Your task to perform on an android device: Go to calendar. Show me events next week Image 0: 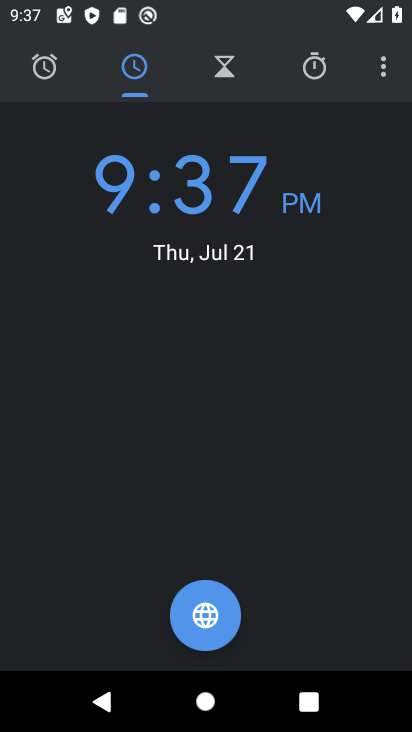
Step 0: press home button
Your task to perform on an android device: Go to calendar. Show me events next week Image 1: 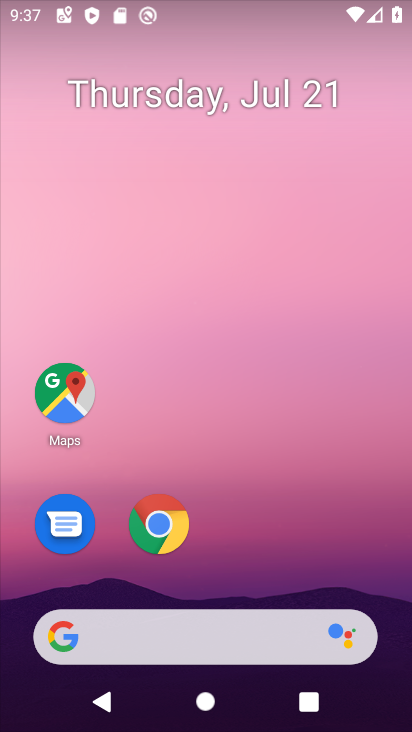
Step 1: drag from (181, 646) to (257, 132)
Your task to perform on an android device: Go to calendar. Show me events next week Image 2: 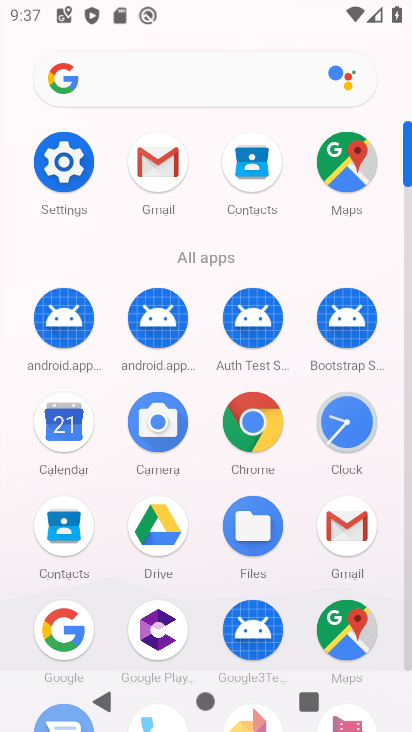
Step 2: click (69, 433)
Your task to perform on an android device: Go to calendar. Show me events next week Image 3: 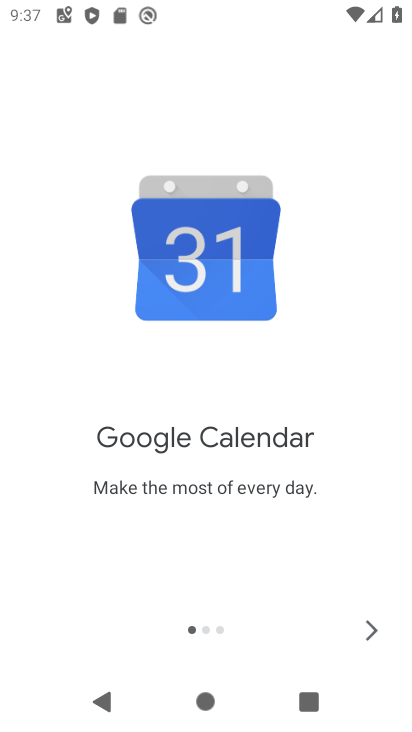
Step 3: click (375, 630)
Your task to perform on an android device: Go to calendar. Show me events next week Image 4: 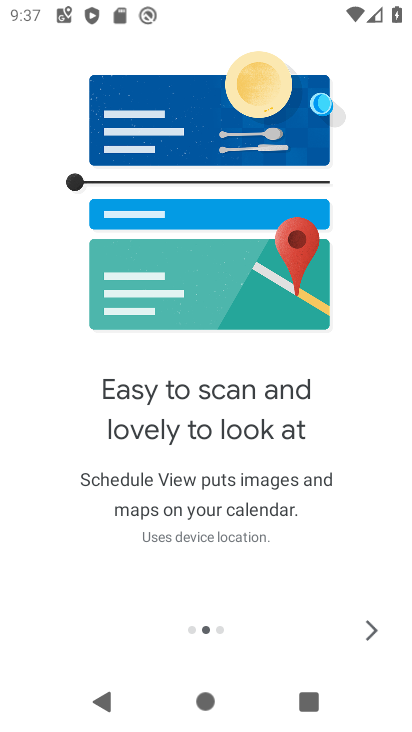
Step 4: click (375, 629)
Your task to perform on an android device: Go to calendar. Show me events next week Image 5: 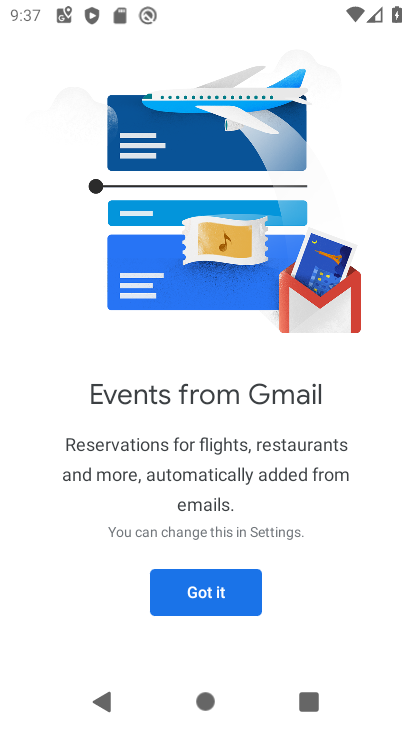
Step 5: click (225, 595)
Your task to perform on an android device: Go to calendar. Show me events next week Image 6: 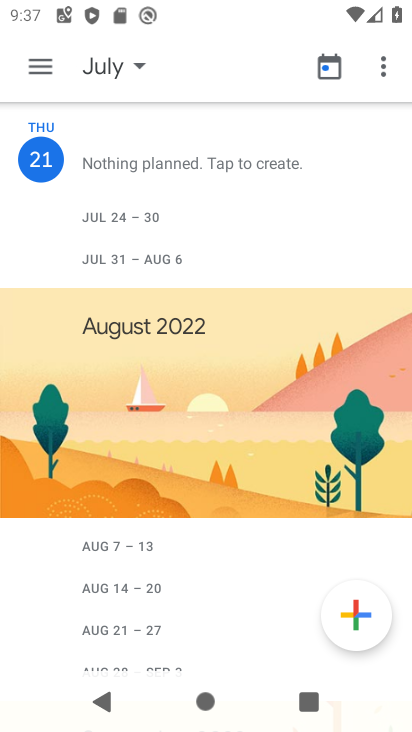
Step 6: click (98, 56)
Your task to perform on an android device: Go to calendar. Show me events next week Image 7: 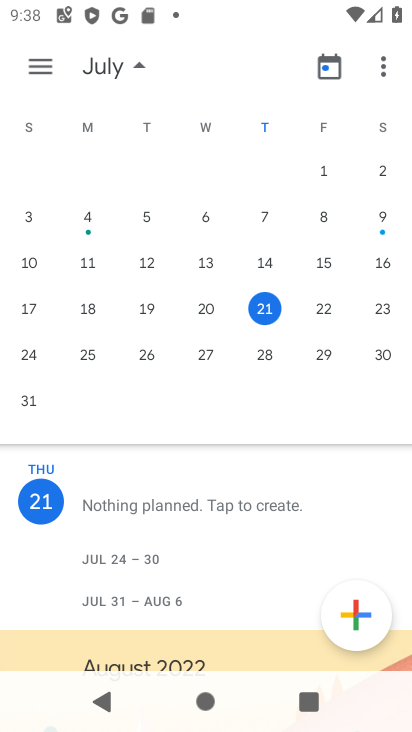
Step 7: click (30, 362)
Your task to perform on an android device: Go to calendar. Show me events next week Image 8: 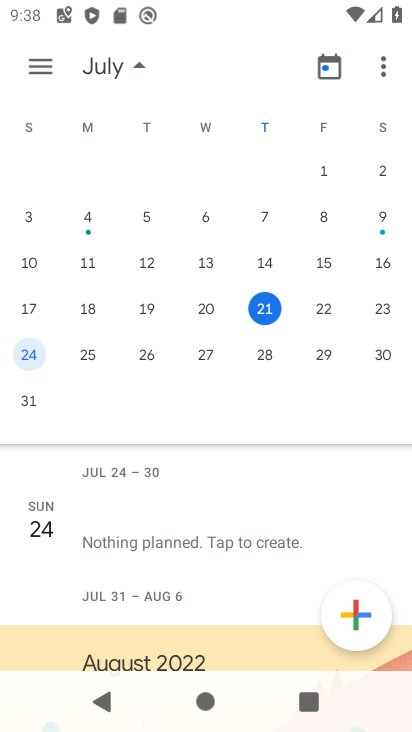
Step 8: click (43, 69)
Your task to perform on an android device: Go to calendar. Show me events next week Image 9: 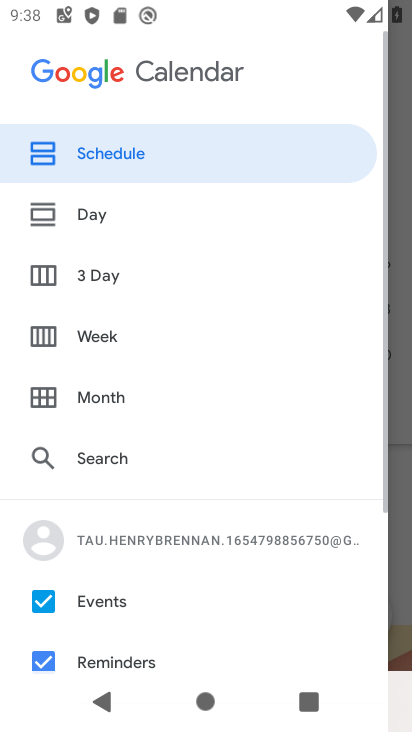
Step 9: click (92, 334)
Your task to perform on an android device: Go to calendar. Show me events next week Image 10: 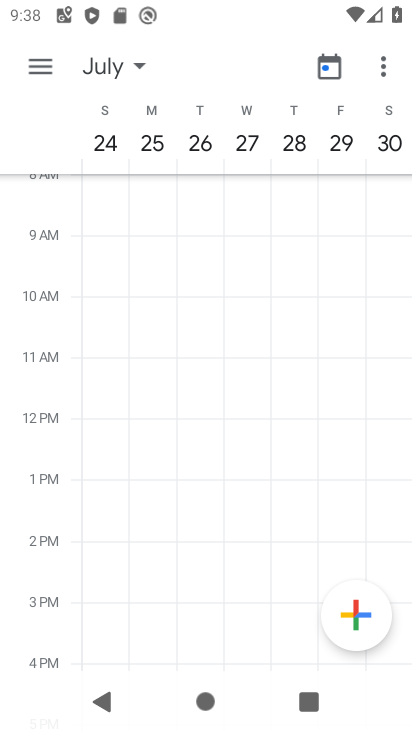
Step 10: click (46, 65)
Your task to perform on an android device: Go to calendar. Show me events next week Image 11: 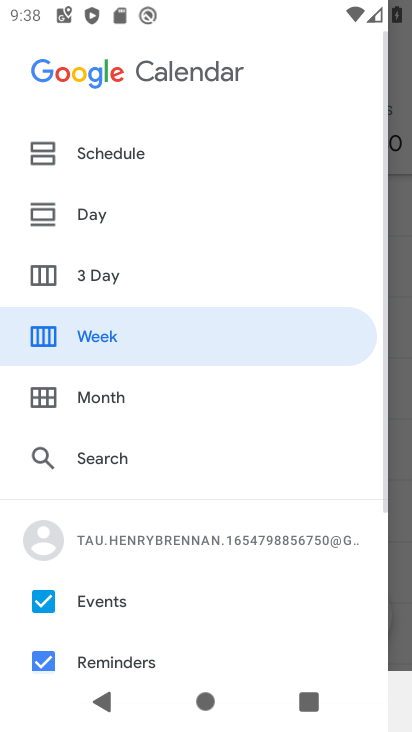
Step 11: click (131, 150)
Your task to perform on an android device: Go to calendar. Show me events next week Image 12: 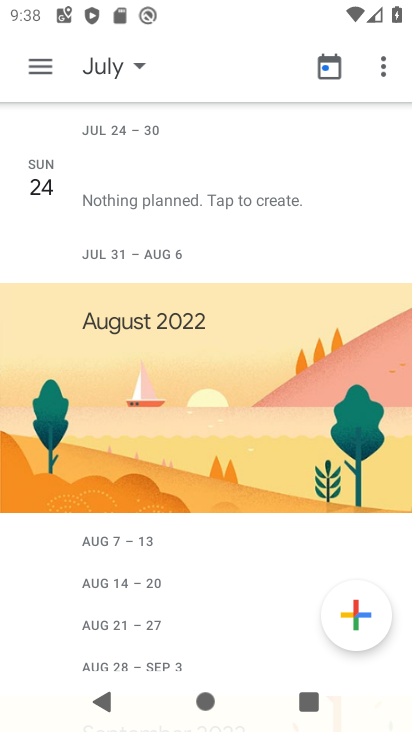
Step 12: task complete